Your task to perform on an android device: see tabs open on other devices in the chrome app Image 0: 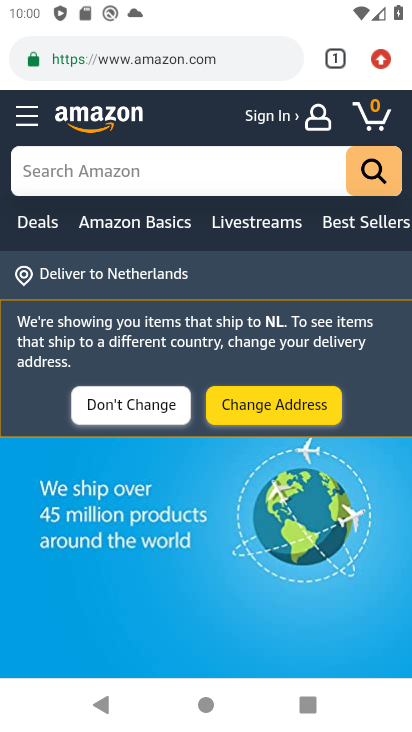
Step 0: click (378, 65)
Your task to perform on an android device: see tabs open on other devices in the chrome app Image 1: 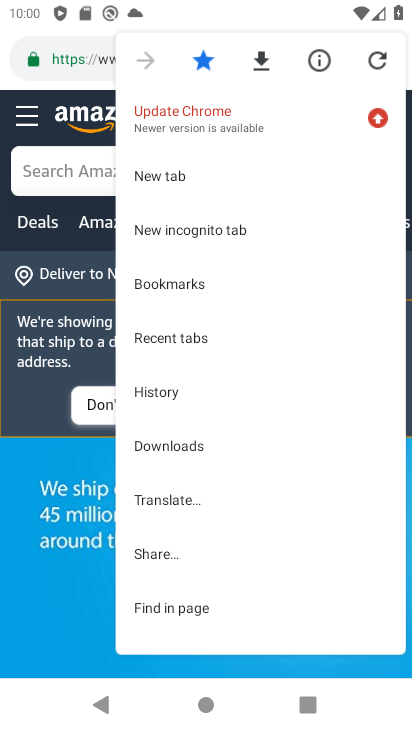
Step 1: click (188, 337)
Your task to perform on an android device: see tabs open on other devices in the chrome app Image 2: 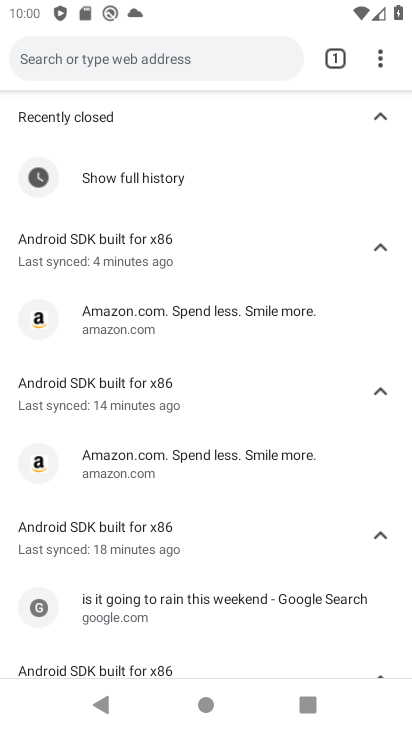
Step 2: task complete